Your task to perform on an android device: Open Google Maps and go to "Timeline" Image 0: 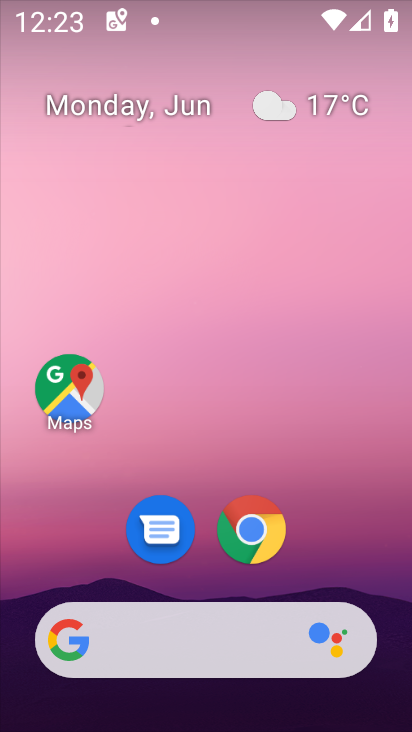
Step 0: drag from (348, 555) to (252, 1)
Your task to perform on an android device: Open Google Maps and go to "Timeline" Image 1: 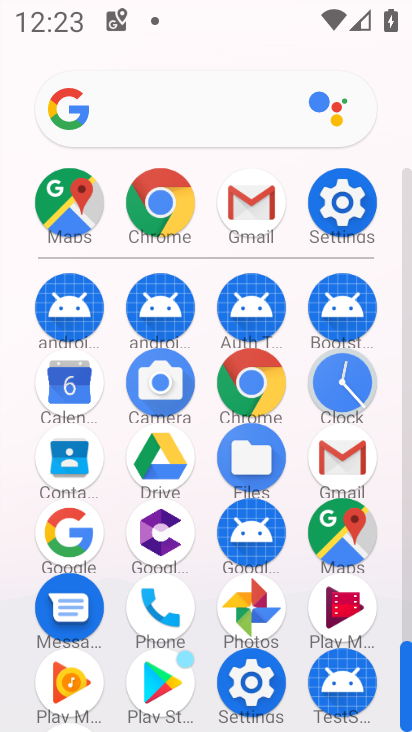
Step 1: click (369, 532)
Your task to perform on an android device: Open Google Maps and go to "Timeline" Image 2: 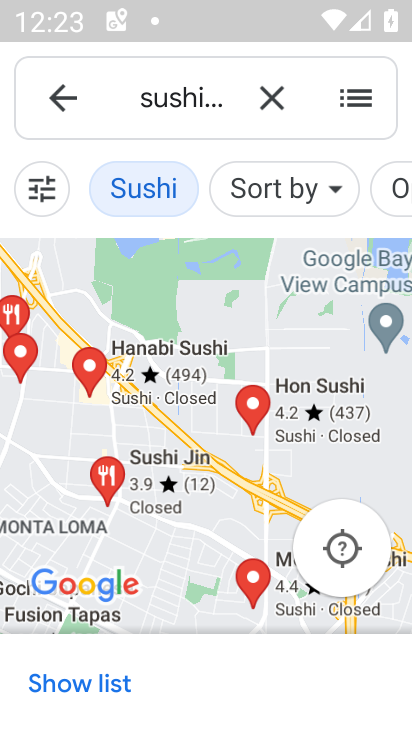
Step 2: click (68, 109)
Your task to perform on an android device: Open Google Maps and go to "Timeline" Image 3: 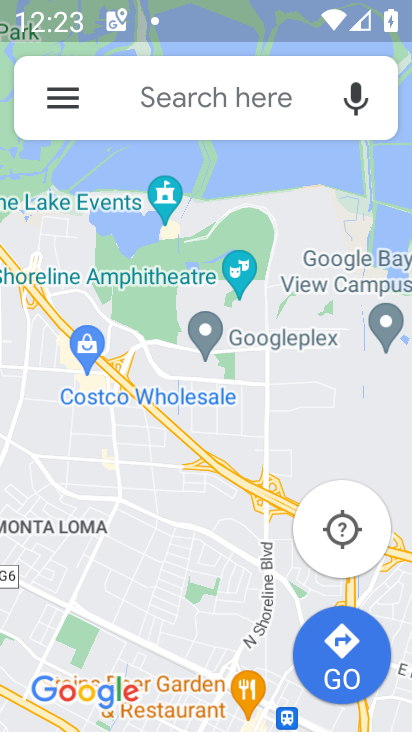
Step 3: click (69, 105)
Your task to perform on an android device: Open Google Maps and go to "Timeline" Image 4: 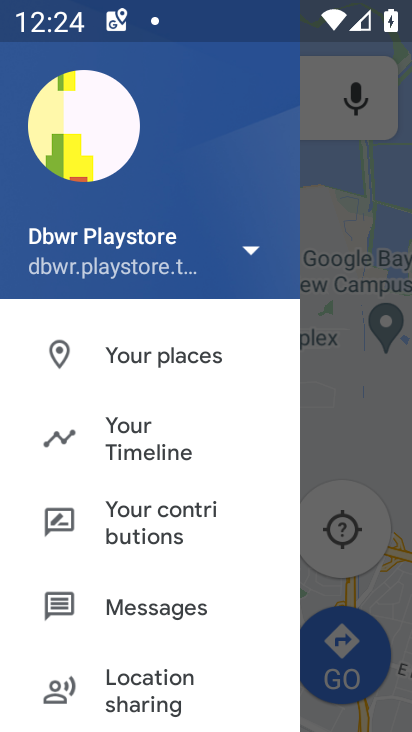
Step 4: click (108, 472)
Your task to perform on an android device: Open Google Maps and go to "Timeline" Image 5: 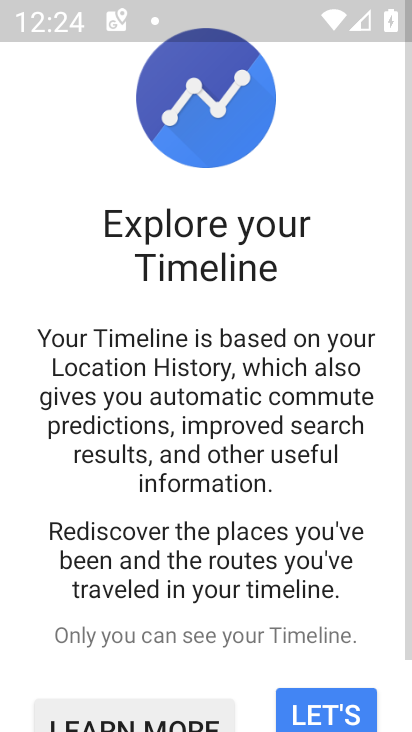
Step 5: task complete